Your task to perform on an android device: Open Amazon Image 0: 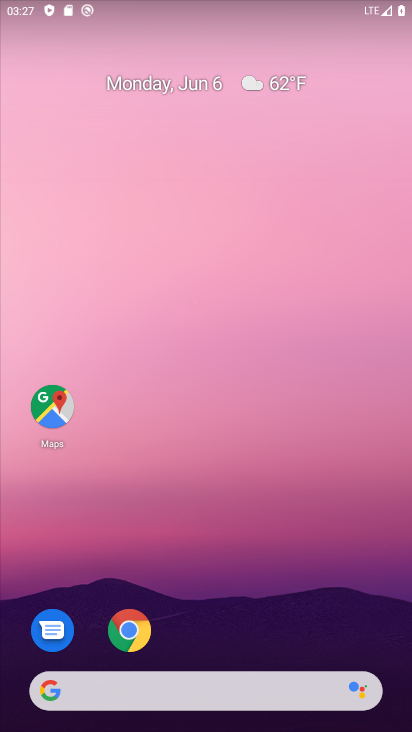
Step 0: press home button
Your task to perform on an android device: Open Amazon Image 1: 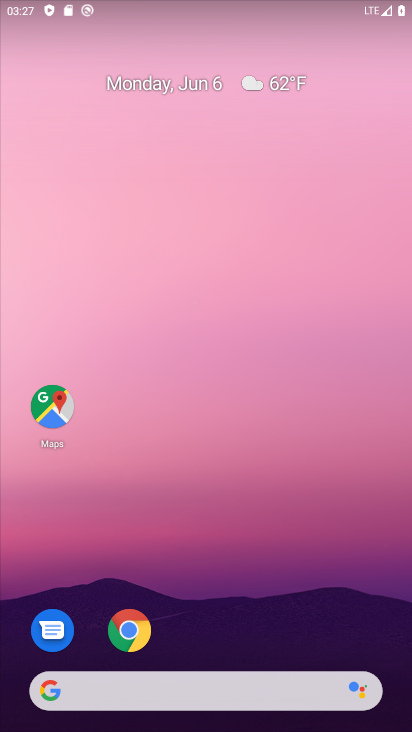
Step 1: click (143, 610)
Your task to perform on an android device: Open Amazon Image 2: 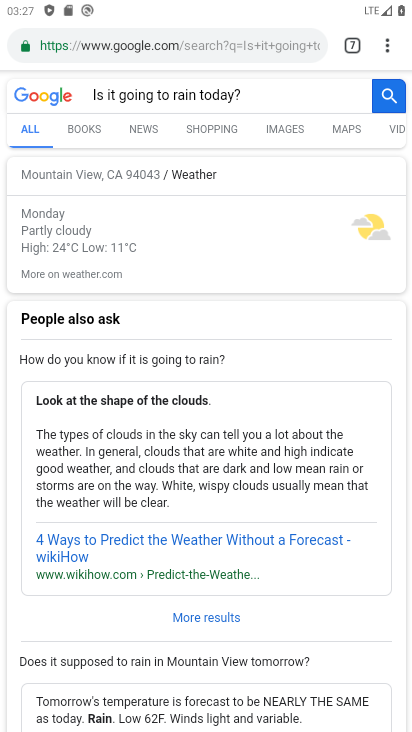
Step 2: drag from (383, 38) to (243, 108)
Your task to perform on an android device: Open Amazon Image 3: 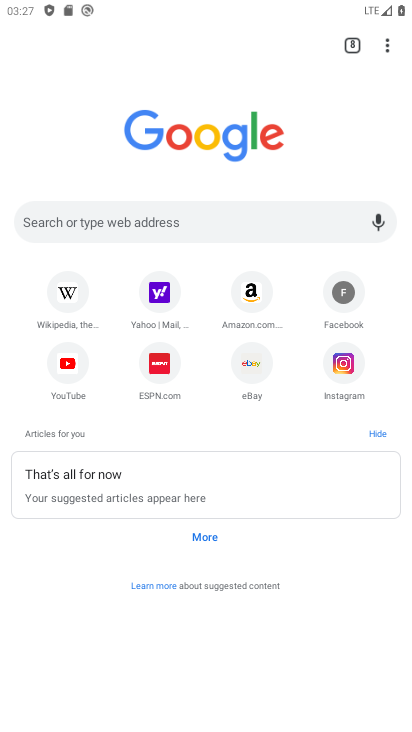
Step 3: click (253, 299)
Your task to perform on an android device: Open Amazon Image 4: 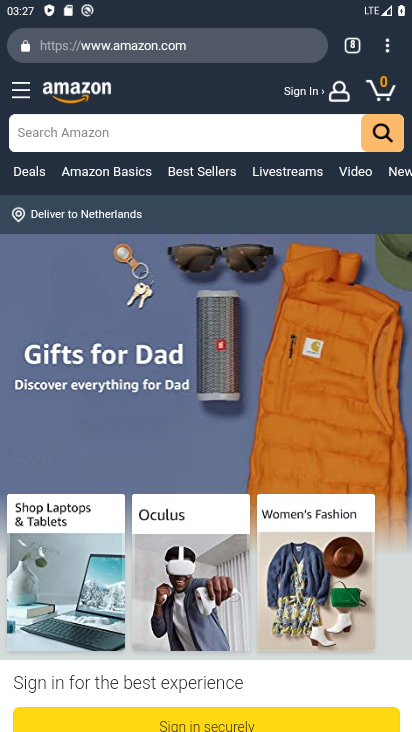
Step 4: task complete